Your task to perform on an android device: allow notifications from all sites in the chrome app Image 0: 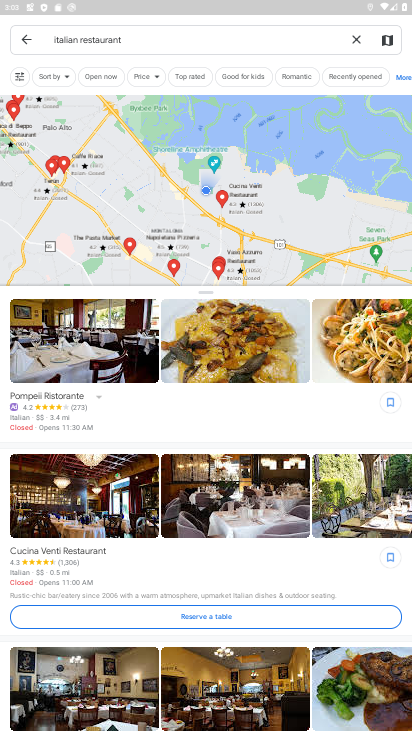
Step 0: press home button
Your task to perform on an android device: allow notifications from all sites in the chrome app Image 1: 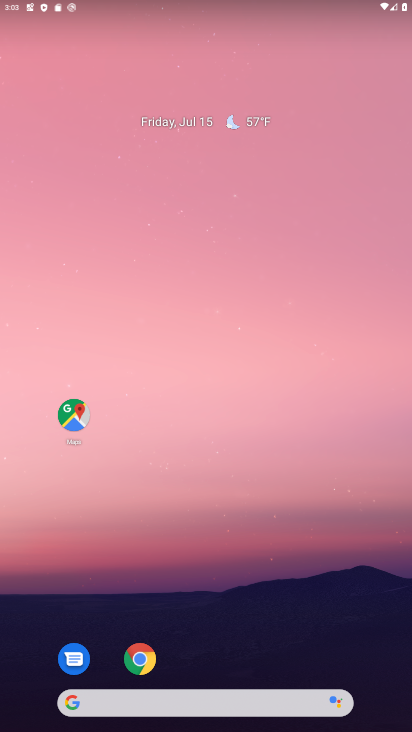
Step 1: drag from (222, 654) to (225, 6)
Your task to perform on an android device: allow notifications from all sites in the chrome app Image 2: 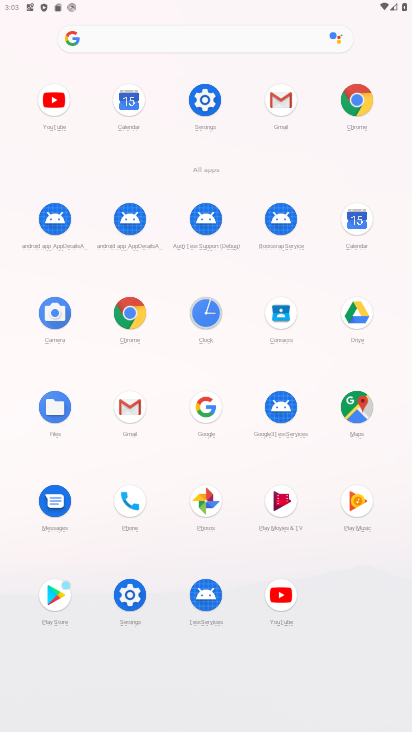
Step 2: click (127, 326)
Your task to perform on an android device: allow notifications from all sites in the chrome app Image 3: 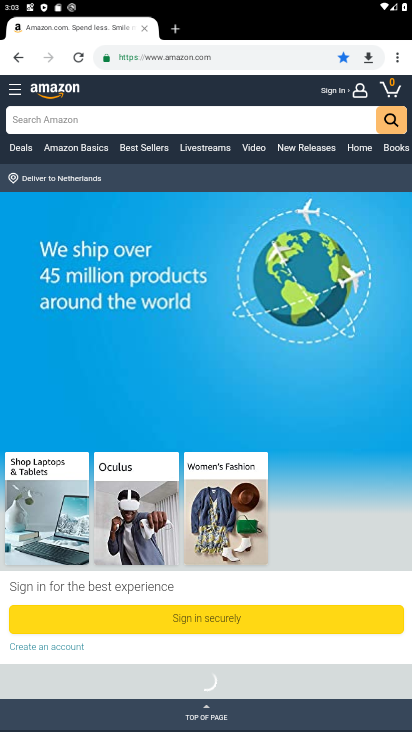
Step 3: click (398, 60)
Your task to perform on an android device: allow notifications from all sites in the chrome app Image 4: 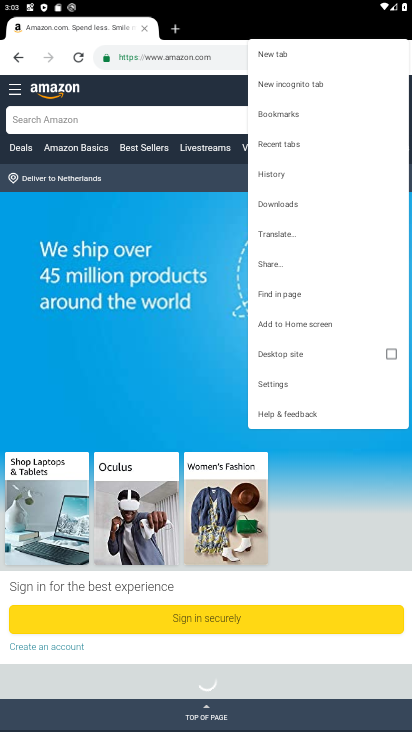
Step 4: click (274, 382)
Your task to perform on an android device: allow notifications from all sites in the chrome app Image 5: 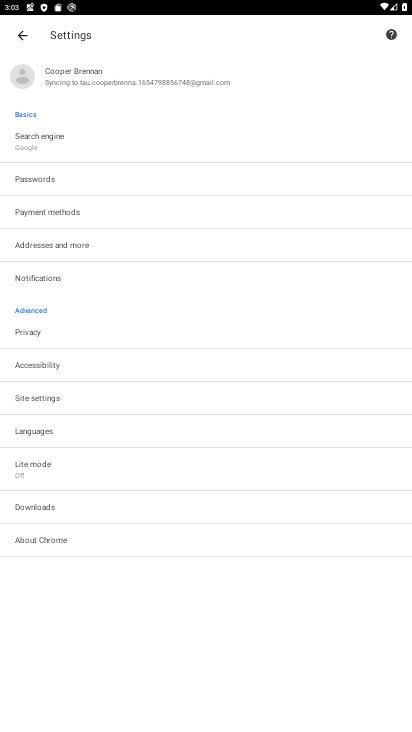
Step 5: click (42, 282)
Your task to perform on an android device: allow notifications from all sites in the chrome app Image 6: 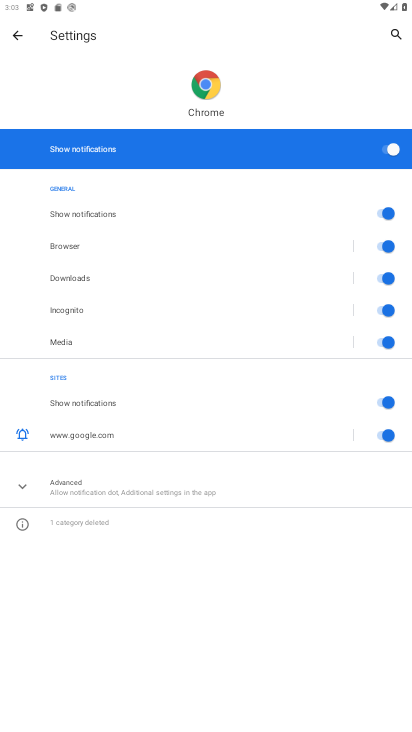
Step 6: task complete